Your task to perform on an android device: turn notification dots off Image 0: 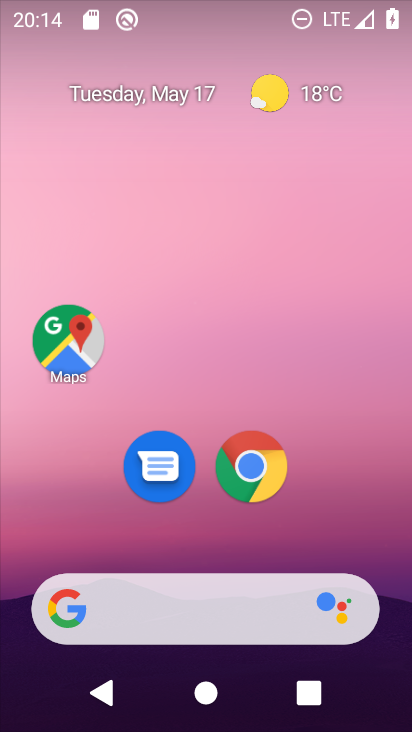
Step 0: press home button
Your task to perform on an android device: turn notification dots off Image 1: 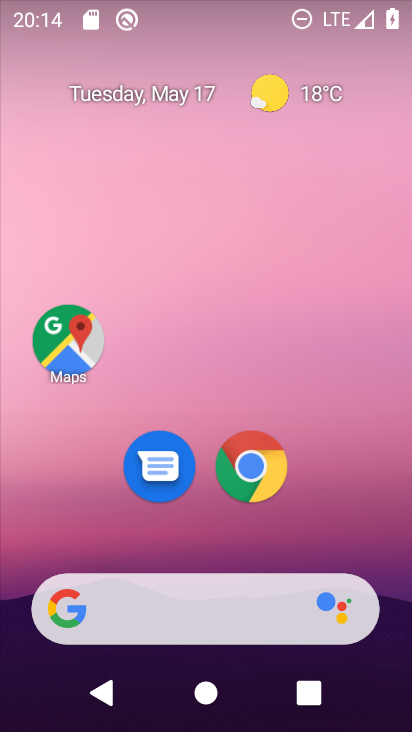
Step 1: drag from (168, 608) to (328, 79)
Your task to perform on an android device: turn notification dots off Image 2: 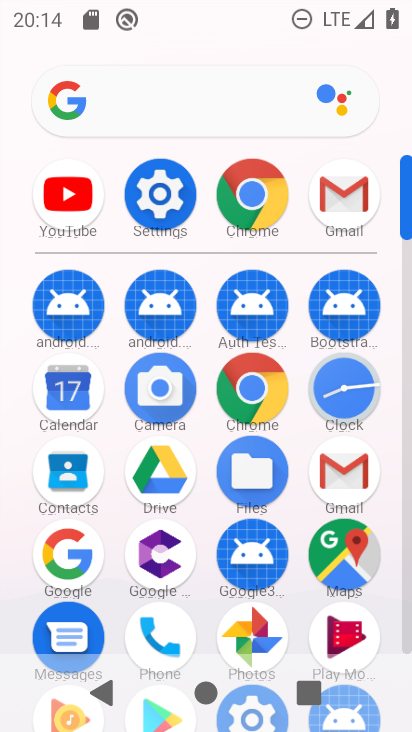
Step 2: click (173, 187)
Your task to perform on an android device: turn notification dots off Image 3: 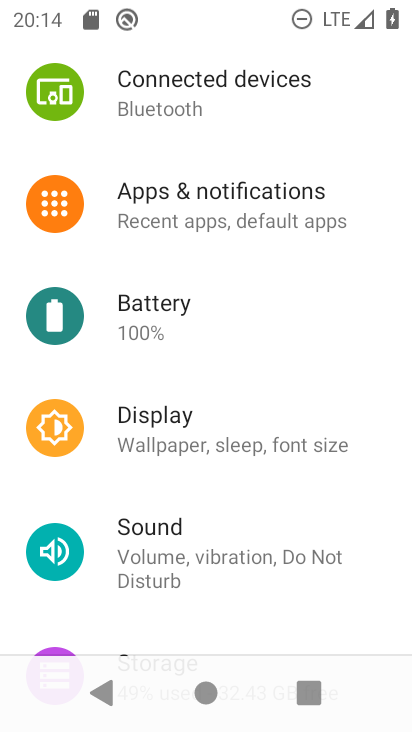
Step 3: click (256, 198)
Your task to perform on an android device: turn notification dots off Image 4: 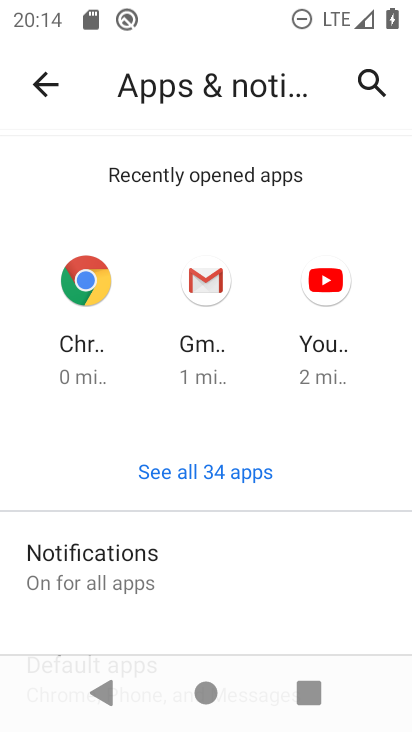
Step 4: click (94, 576)
Your task to perform on an android device: turn notification dots off Image 5: 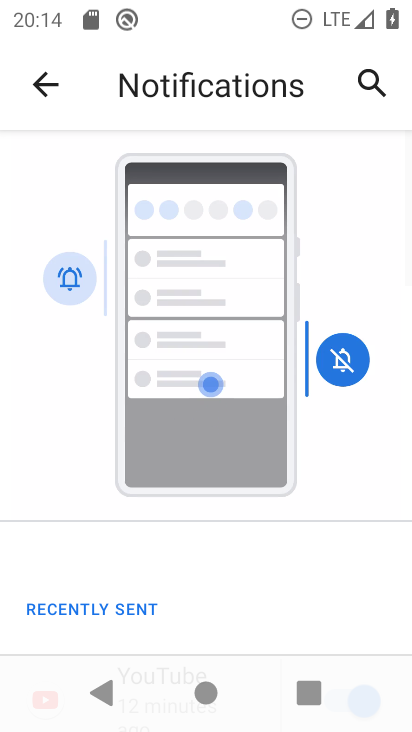
Step 5: drag from (232, 599) to (372, 132)
Your task to perform on an android device: turn notification dots off Image 6: 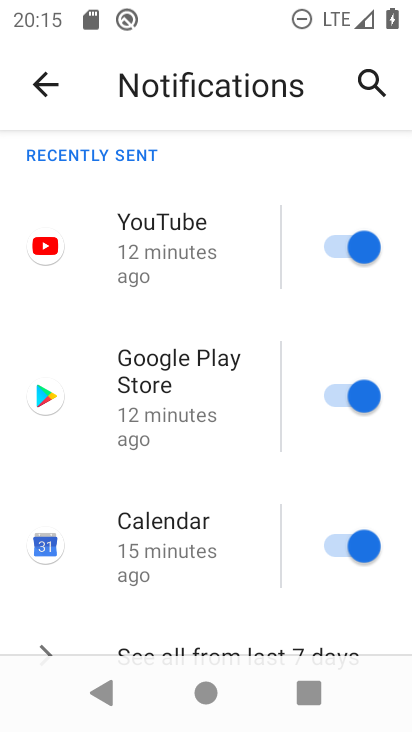
Step 6: drag from (198, 602) to (327, 175)
Your task to perform on an android device: turn notification dots off Image 7: 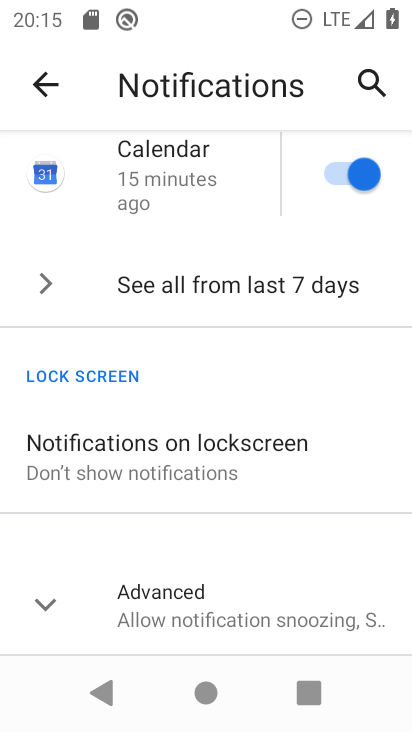
Step 7: drag from (266, 286) to (303, 177)
Your task to perform on an android device: turn notification dots off Image 8: 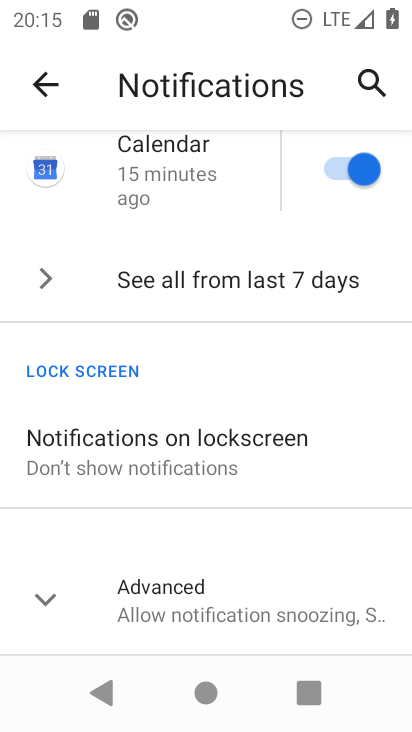
Step 8: click (185, 584)
Your task to perform on an android device: turn notification dots off Image 9: 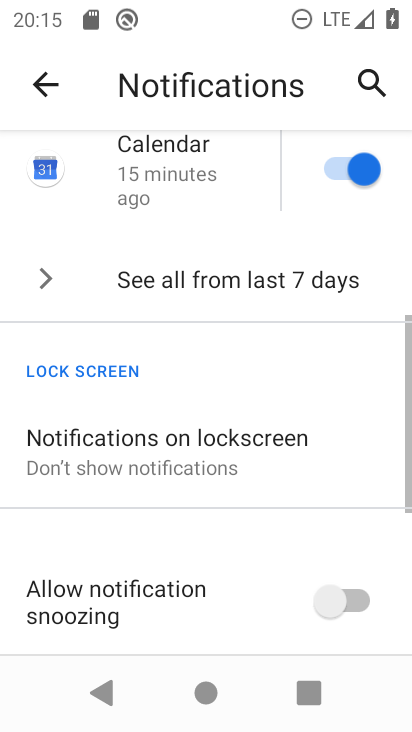
Step 9: drag from (234, 589) to (330, 174)
Your task to perform on an android device: turn notification dots off Image 10: 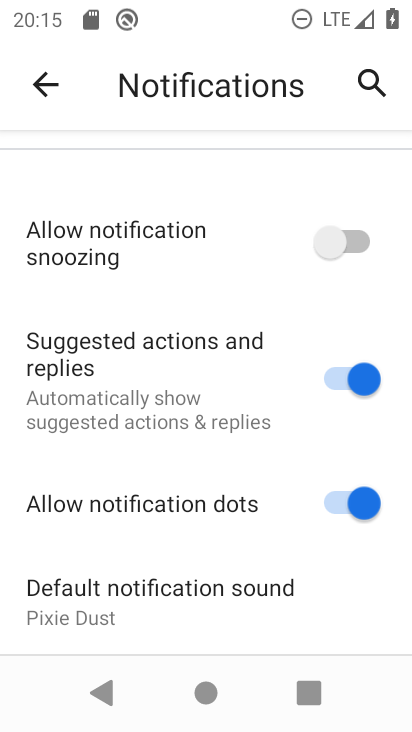
Step 10: click (338, 507)
Your task to perform on an android device: turn notification dots off Image 11: 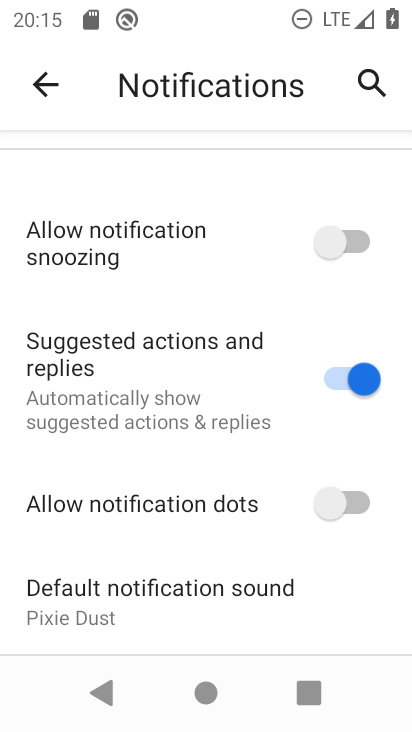
Step 11: task complete